Your task to perform on an android device: set an alarm Image 0: 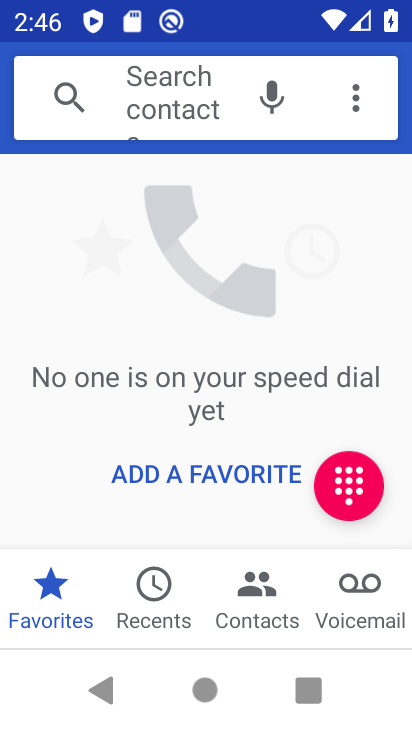
Step 0: press home button
Your task to perform on an android device: set an alarm Image 1: 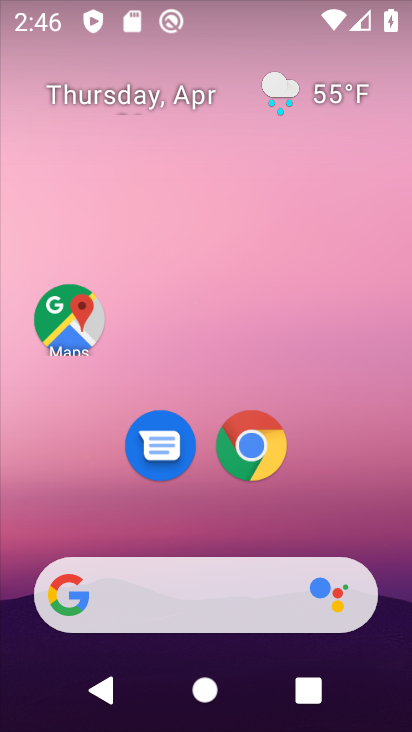
Step 1: drag from (219, 696) to (202, 44)
Your task to perform on an android device: set an alarm Image 2: 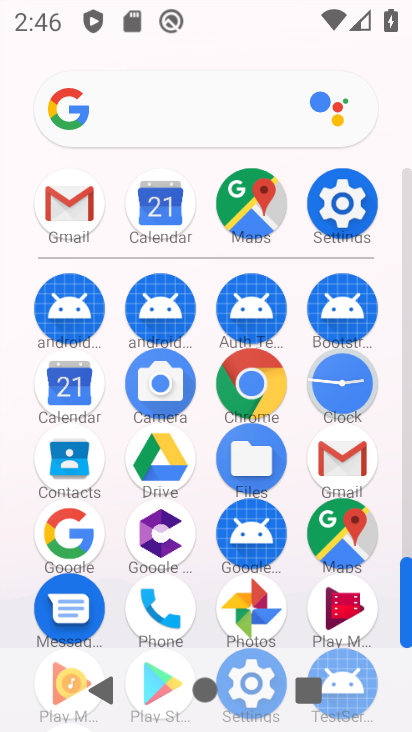
Step 2: click (340, 386)
Your task to perform on an android device: set an alarm Image 3: 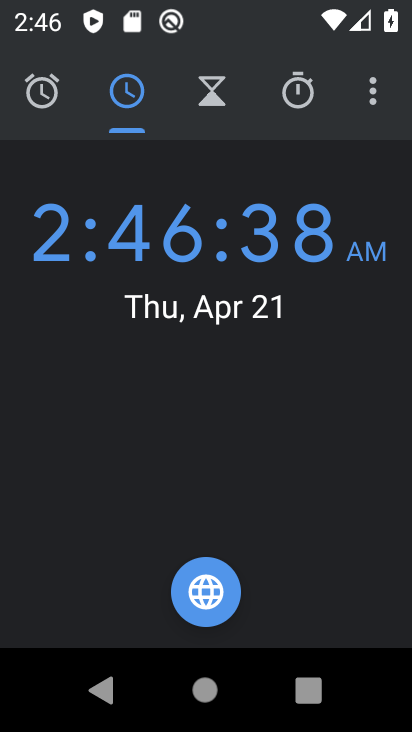
Step 3: click (40, 88)
Your task to perform on an android device: set an alarm Image 4: 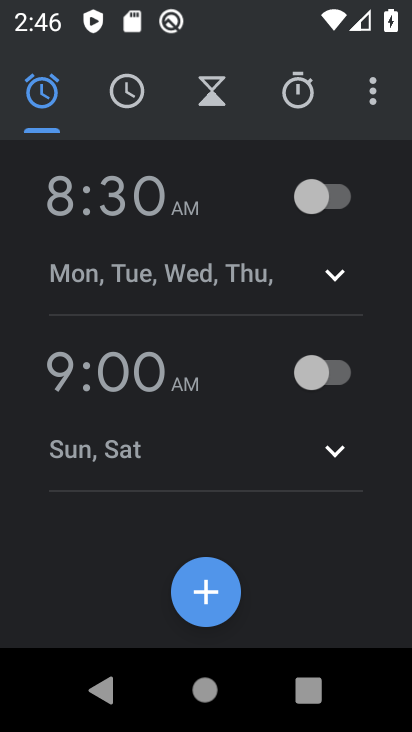
Step 4: click (208, 589)
Your task to perform on an android device: set an alarm Image 5: 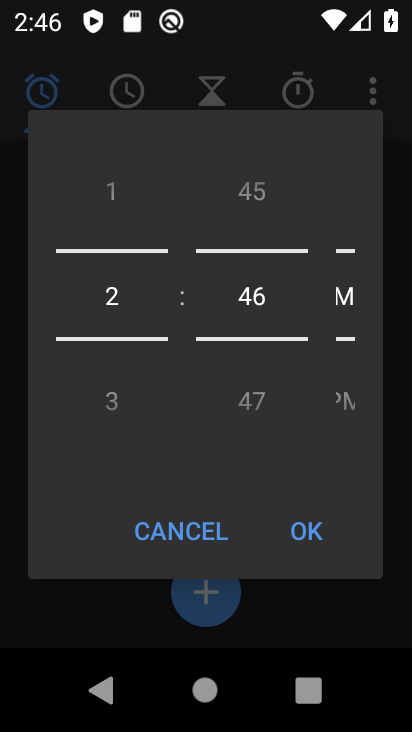
Step 5: drag from (109, 400) to (120, 44)
Your task to perform on an android device: set an alarm Image 6: 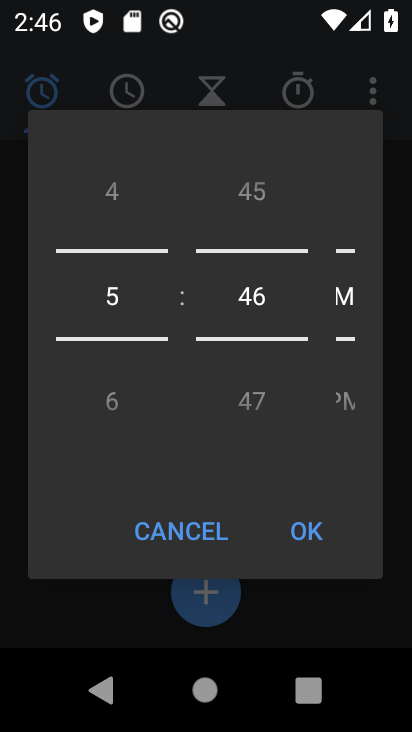
Step 6: drag from (254, 181) to (248, 464)
Your task to perform on an android device: set an alarm Image 7: 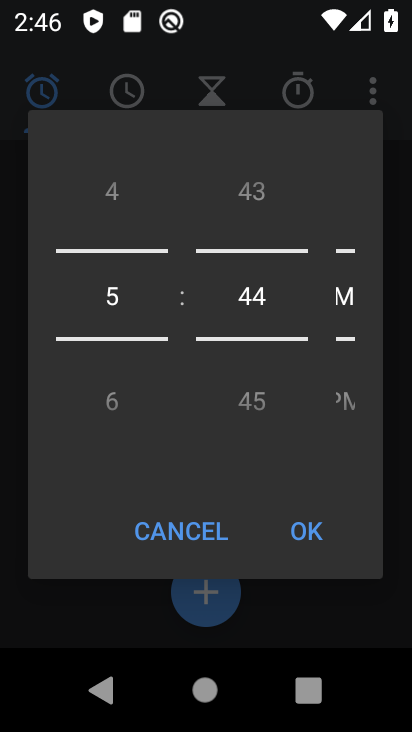
Step 7: drag from (343, 409) to (330, 161)
Your task to perform on an android device: set an alarm Image 8: 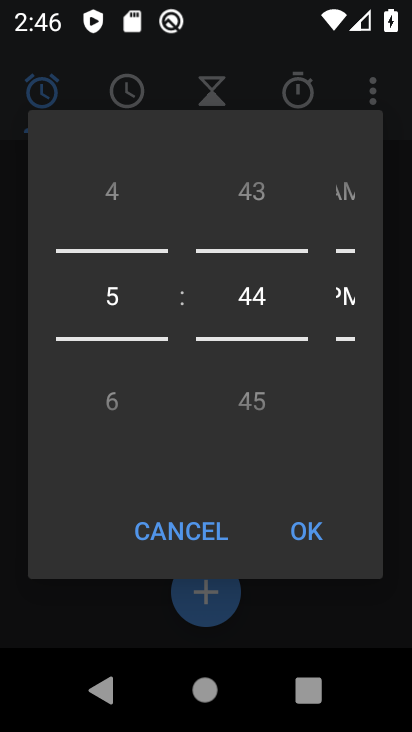
Step 8: click (312, 526)
Your task to perform on an android device: set an alarm Image 9: 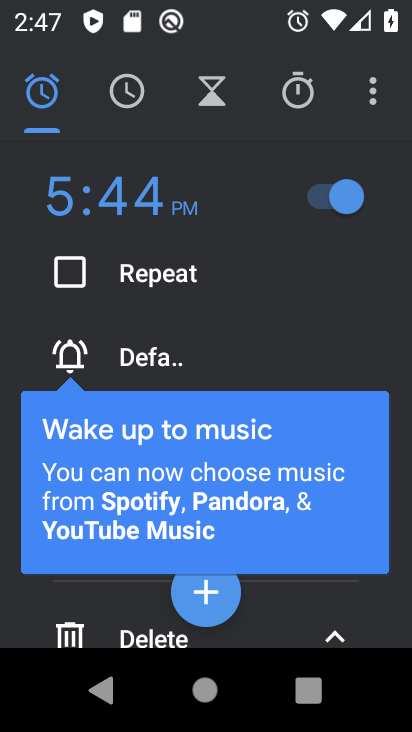
Step 9: task complete